Your task to perform on an android device: Go to Google Image 0: 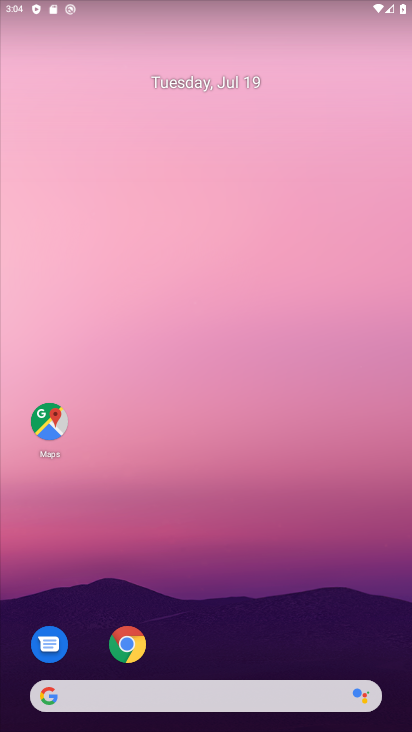
Step 0: drag from (178, 638) to (304, 210)
Your task to perform on an android device: Go to Google Image 1: 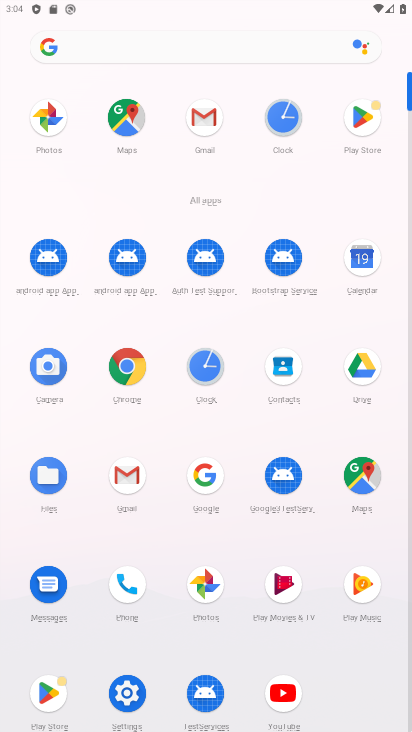
Step 1: click (198, 481)
Your task to perform on an android device: Go to Google Image 2: 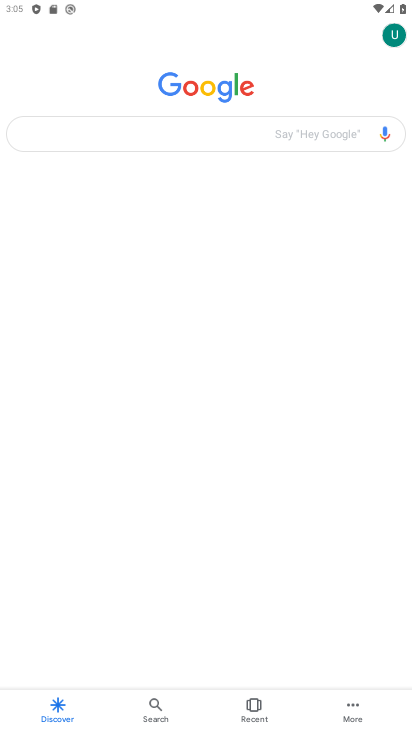
Step 2: task complete